Your task to perform on an android device: Open Youtube and go to the subscriptions tab Image 0: 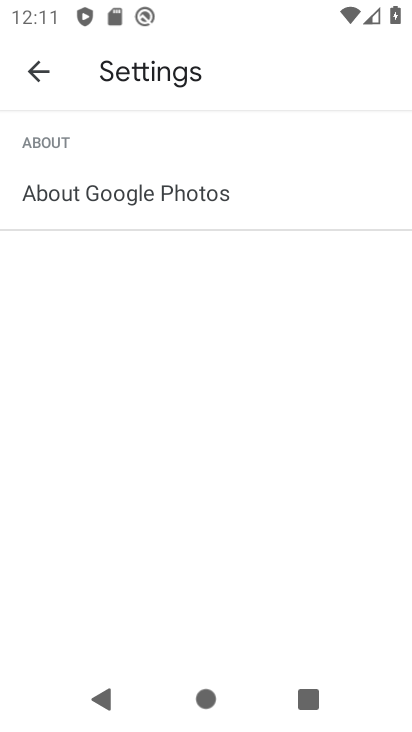
Step 0: press home button
Your task to perform on an android device: Open Youtube and go to the subscriptions tab Image 1: 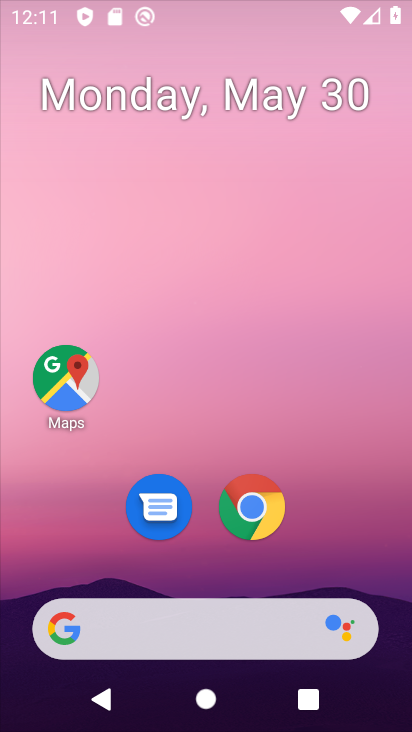
Step 1: drag from (280, 526) to (278, 85)
Your task to perform on an android device: Open Youtube and go to the subscriptions tab Image 2: 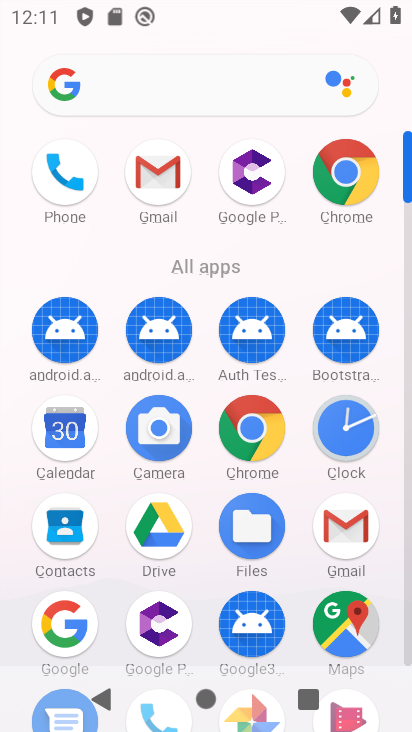
Step 2: drag from (305, 583) to (298, 202)
Your task to perform on an android device: Open Youtube and go to the subscriptions tab Image 3: 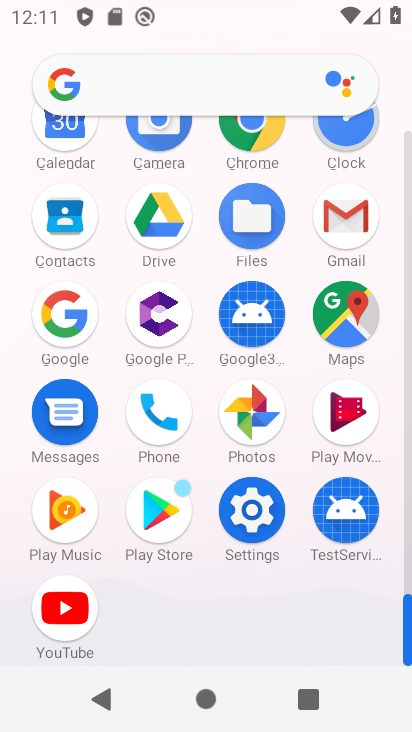
Step 3: click (66, 616)
Your task to perform on an android device: Open Youtube and go to the subscriptions tab Image 4: 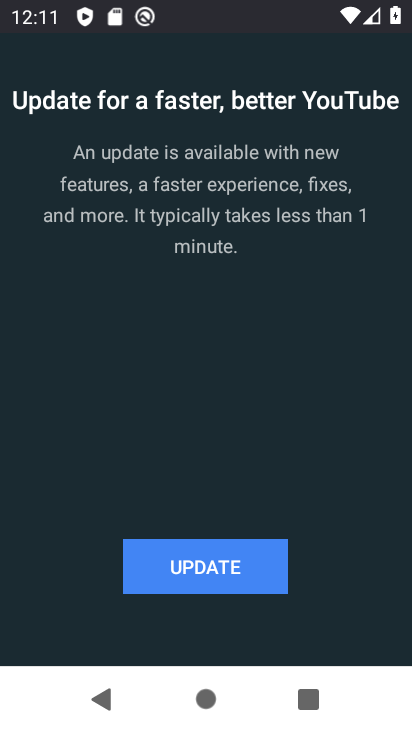
Step 4: task complete